Your task to perform on an android device: turn off location history Image 0: 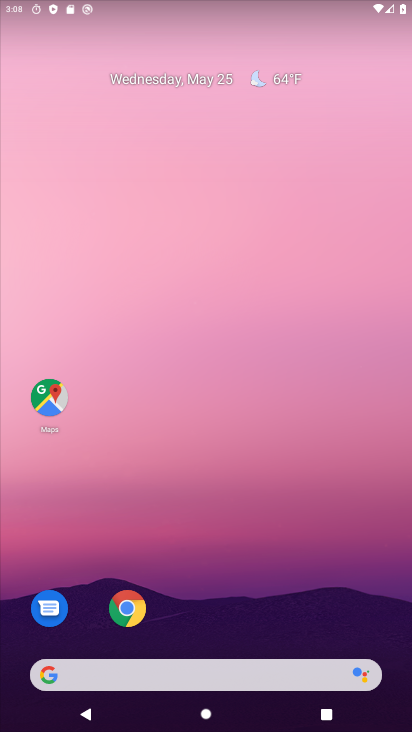
Step 0: drag from (313, 594) to (265, 131)
Your task to perform on an android device: turn off location history Image 1: 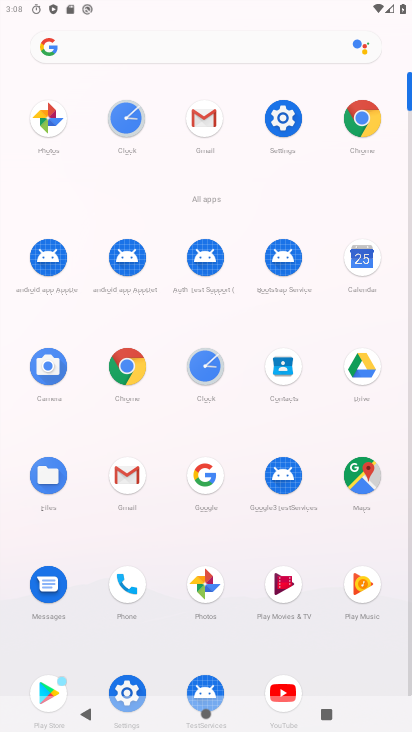
Step 1: click (285, 117)
Your task to perform on an android device: turn off location history Image 2: 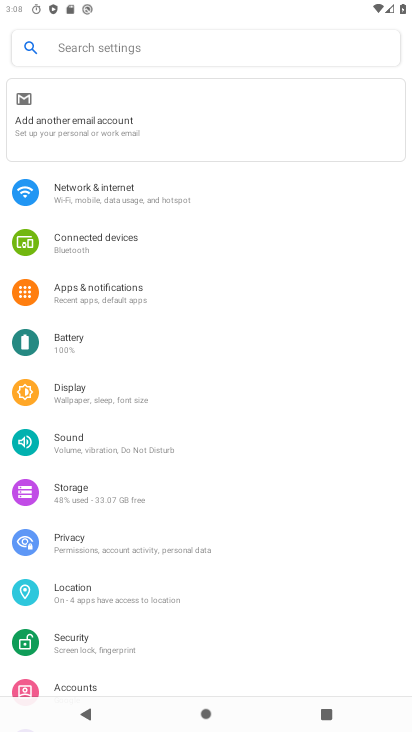
Step 2: drag from (137, 452) to (175, 207)
Your task to perform on an android device: turn off location history Image 3: 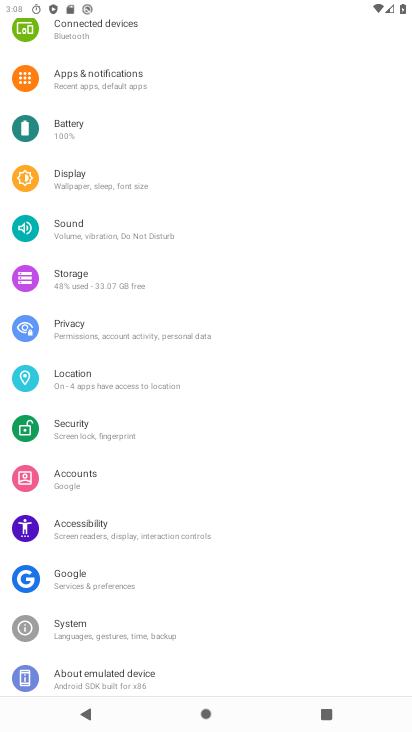
Step 3: click (76, 378)
Your task to perform on an android device: turn off location history Image 4: 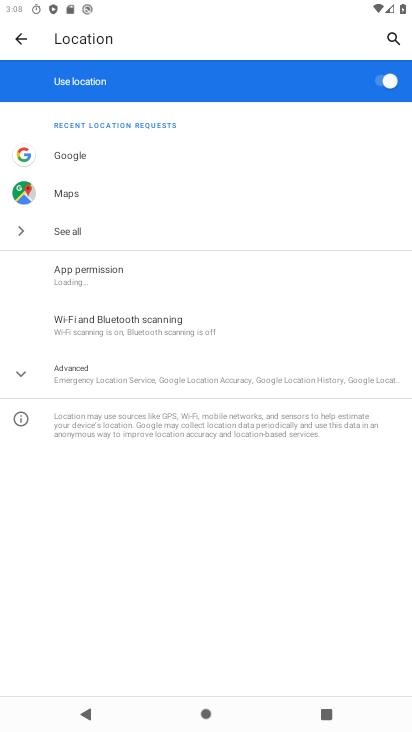
Step 4: click (141, 370)
Your task to perform on an android device: turn off location history Image 5: 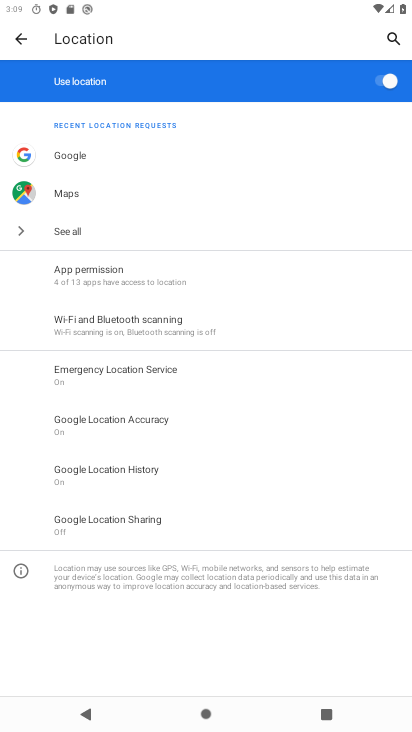
Step 5: click (147, 472)
Your task to perform on an android device: turn off location history Image 6: 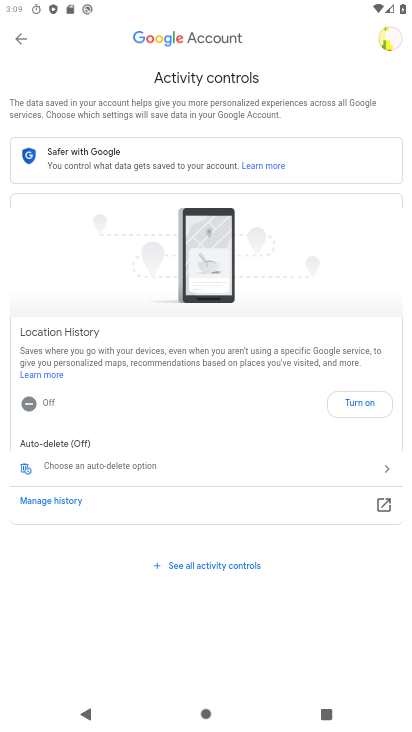
Step 6: task complete